Your task to perform on an android device: Open the calendar app, open the side menu, and click the "Day" option Image 0: 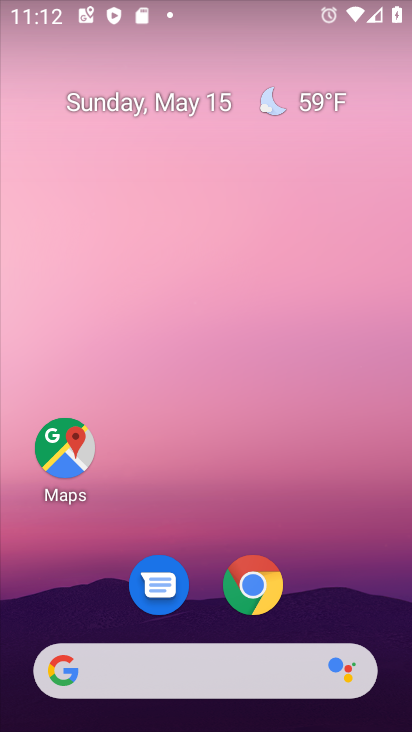
Step 0: drag from (228, 444) to (216, 14)
Your task to perform on an android device: Open the calendar app, open the side menu, and click the "Day" option Image 1: 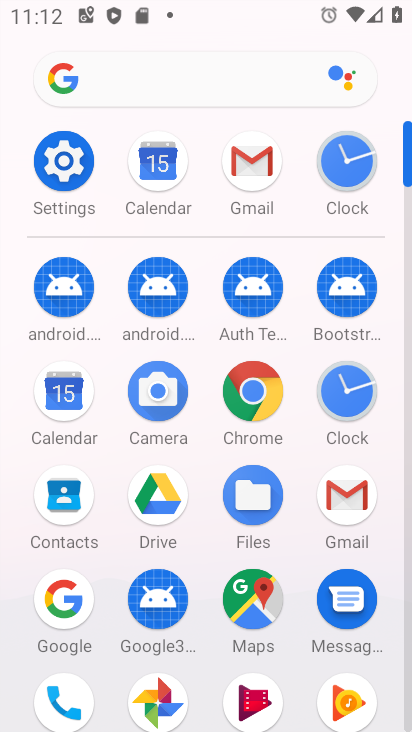
Step 1: click (164, 179)
Your task to perform on an android device: Open the calendar app, open the side menu, and click the "Day" option Image 2: 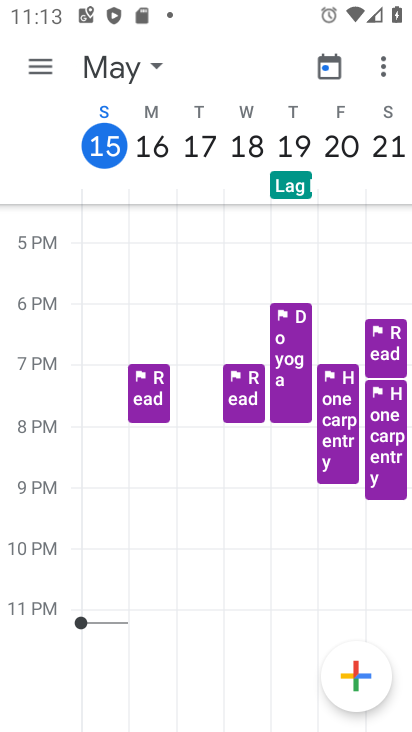
Step 2: click (47, 66)
Your task to perform on an android device: Open the calendar app, open the side menu, and click the "Day" option Image 3: 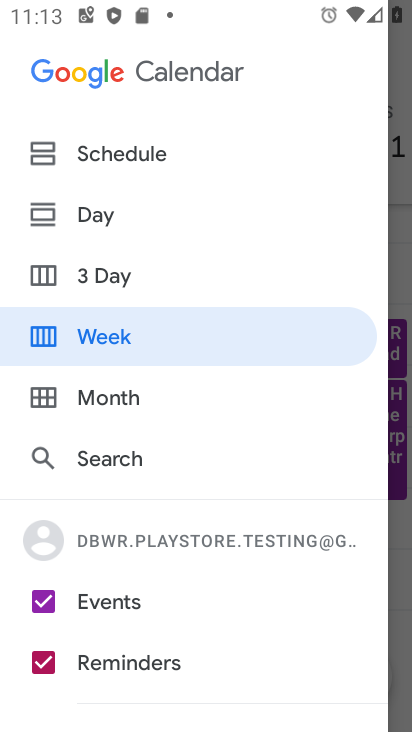
Step 3: click (54, 211)
Your task to perform on an android device: Open the calendar app, open the side menu, and click the "Day" option Image 4: 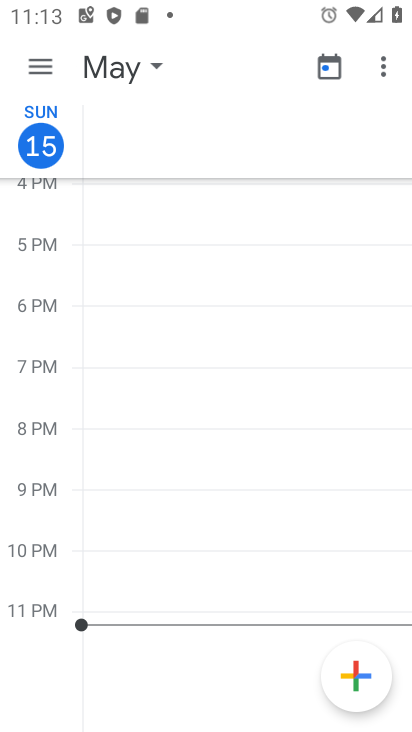
Step 4: task complete